Your task to perform on an android device: Go to calendar. Show me events next week Image 0: 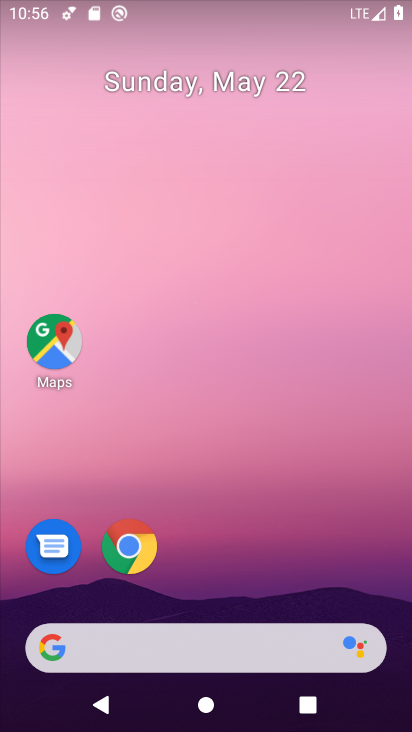
Step 0: drag from (271, 607) to (323, 6)
Your task to perform on an android device: Go to calendar. Show me events next week Image 1: 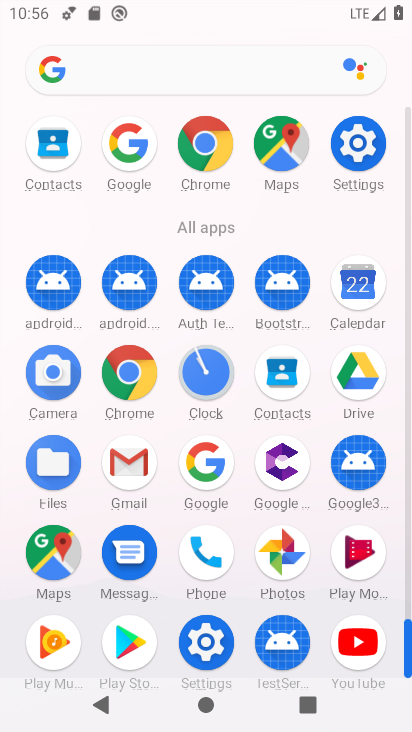
Step 1: drag from (244, 641) to (302, 232)
Your task to perform on an android device: Go to calendar. Show me events next week Image 2: 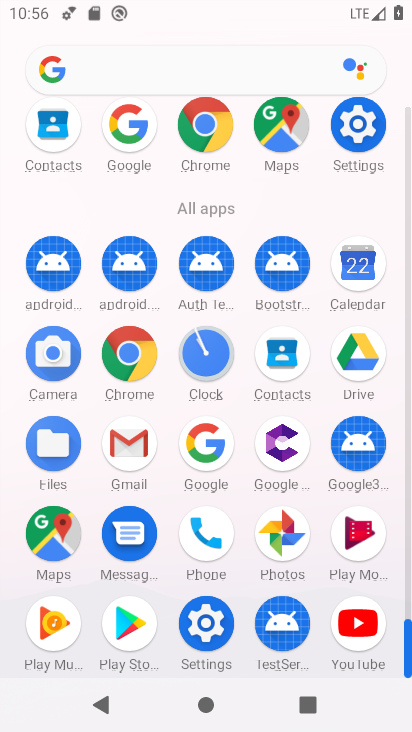
Step 2: click (364, 265)
Your task to perform on an android device: Go to calendar. Show me events next week Image 3: 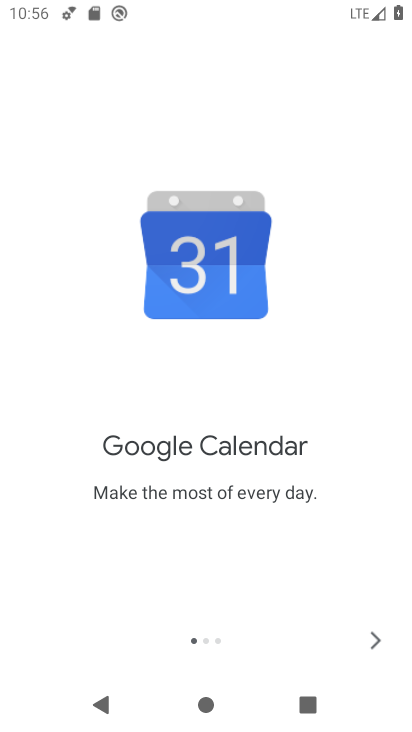
Step 3: click (371, 641)
Your task to perform on an android device: Go to calendar. Show me events next week Image 4: 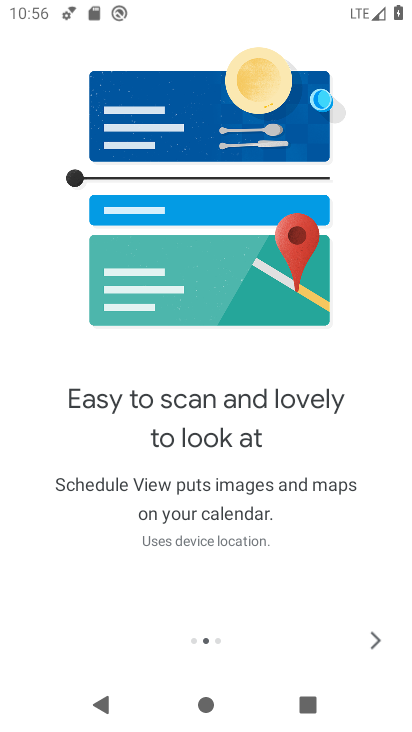
Step 4: click (375, 637)
Your task to perform on an android device: Go to calendar. Show me events next week Image 5: 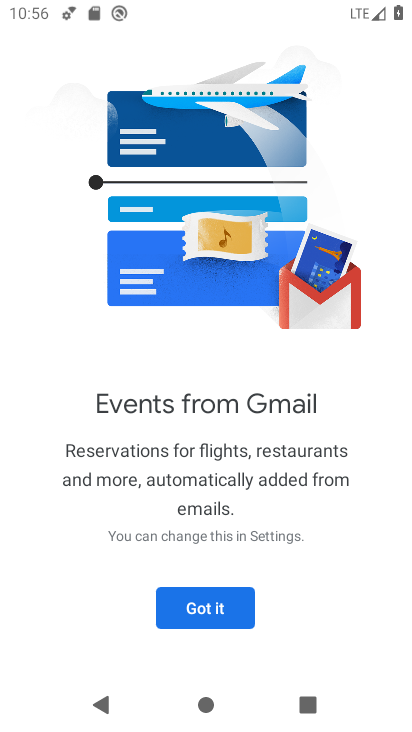
Step 5: click (233, 613)
Your task to perform on an android device: Go to calendar. Show me events next week Image 6: 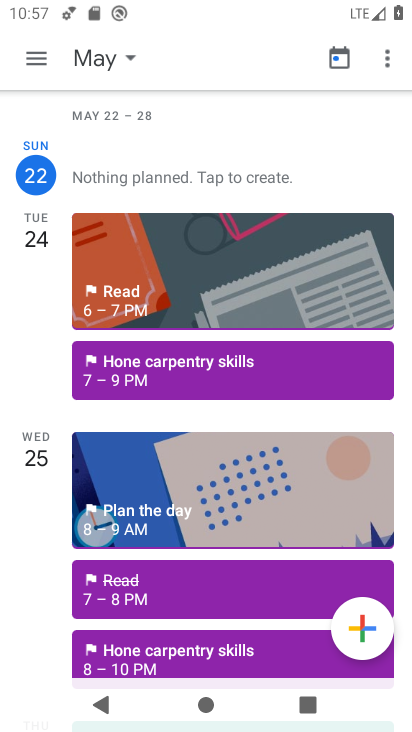
Step 6: click (111, 55)
Your task to perform on an android device: Go to calendar. Show me events next week Image 7: 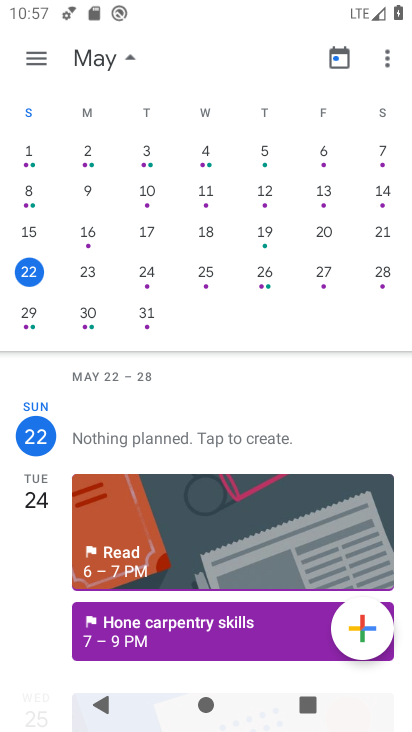
Step 7: click (36, 322)
Your task to perform on an android device: Go to calendar. Show me events next week Image 8: 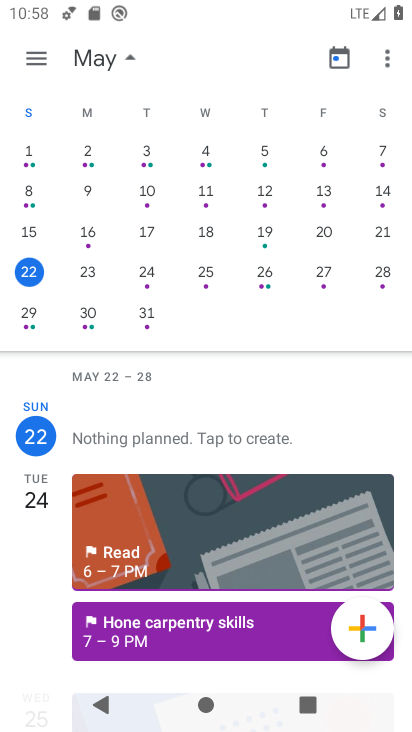
Step 8: click (37, 325)
Your task to perform on an android device: Go to calendar. Show me events next week Image 9: 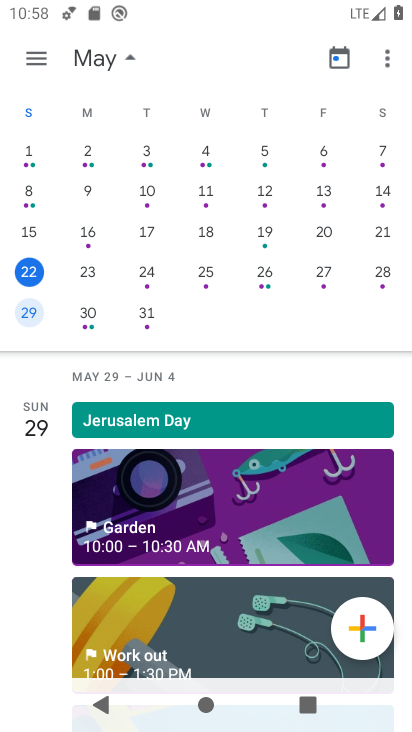
Step 9: task complete